Your task to perform on an android device: open app "LiveIn - Share Your Moment" (install if not already installed) and go to login screen Image 0: 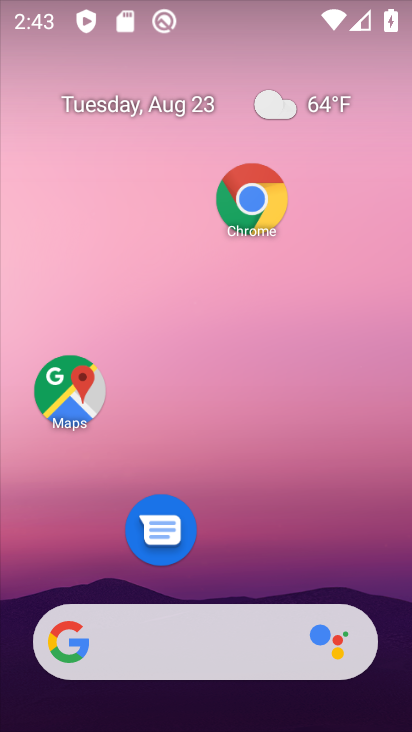
Step 0: click (205, 11)
Your task to perform on an android device: open app "LiveIn - Share Your Moment" (install if not already installed) and go to login screen Image 1: 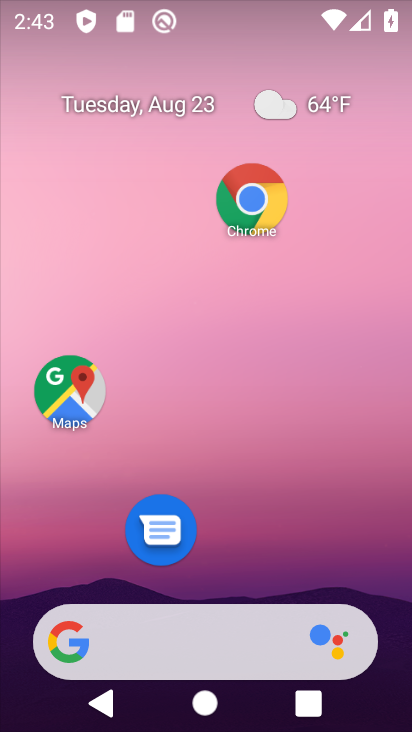
Step 1: drag from (268, 556) to (262, 21)
Your task to perform on an android device: open app "LiveIn - Share Your Moment" (install if not already installed) and go to login screen Image 2: 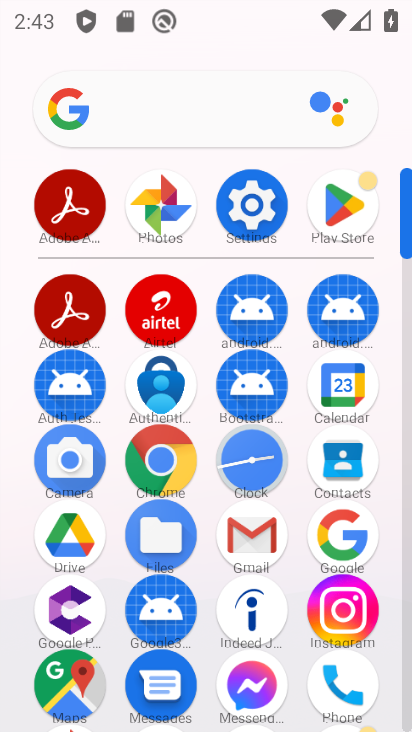
Step 2: click (340, 203)
Your task to perform on an android device: open app "LiveIn - Share Your Moment" (install if not already installed) and go to login screen Image 3: 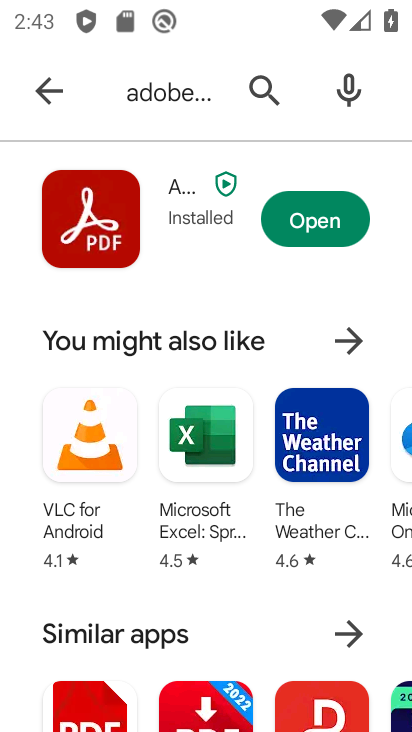
Step 3: click (187, 91)
Your task to perform on an android device: open app "LiveIn - Share Your Moment" (install if not already installed) and go to login screen Image 4: 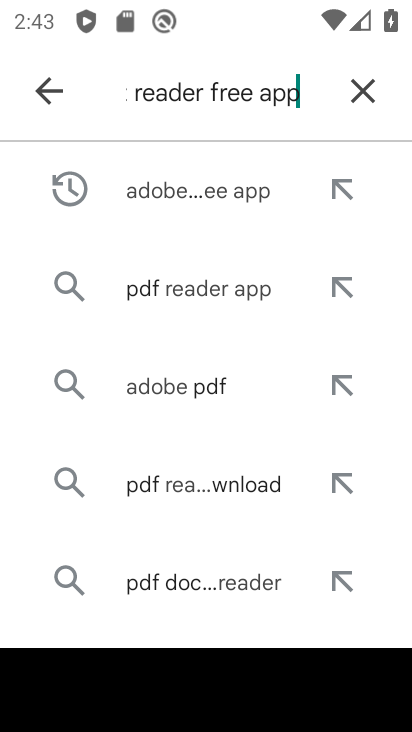
Step 4: click (360, 88)
Your task to perform on an android device: open app "LiveIn - Share Your Moment" (install if not already installed) and go to login screen Image 5: 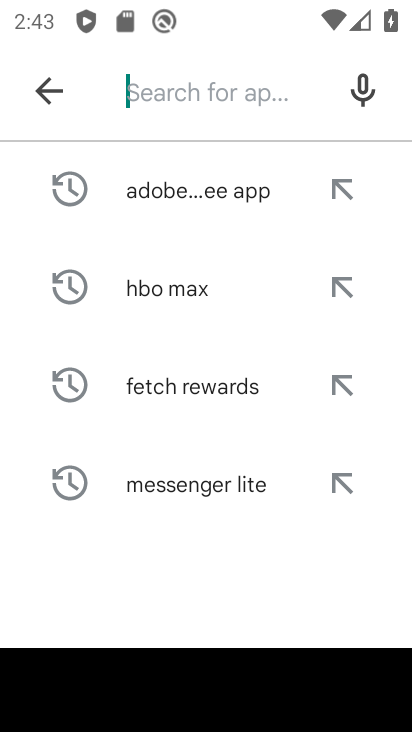
Step 5: type "LieIn"
Your task to perform on an android device: open app "LiveIn - Share Your Moment" (install if not already installed) and go to login screen Image 6: 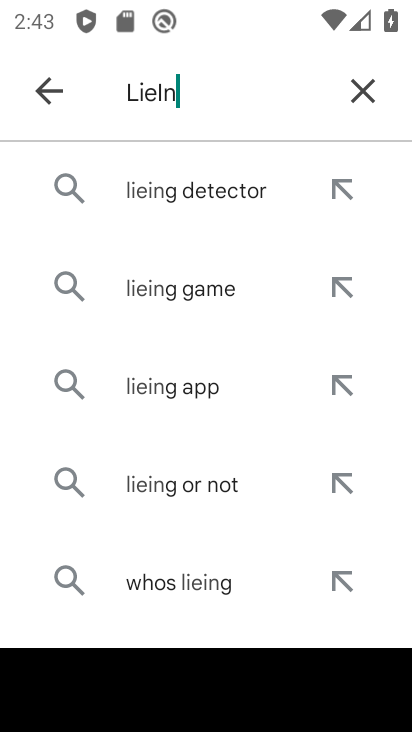
Step 6: click (147, 87)
Your task to perform on an android device: open app "LiveIn - Share Your Moment" (install if not already installed) and go to login screen Image 7: 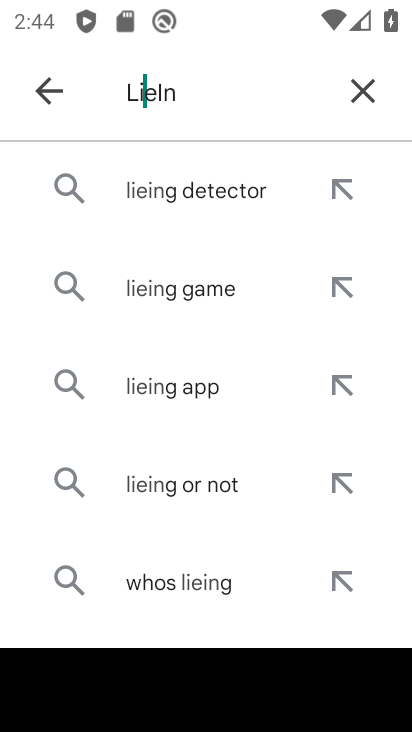
Step 7: type "v"
Your task to perform on an android device: open app "LiveIn - Share Your Moment" (install if not already installed) and go to login screen Image 8: 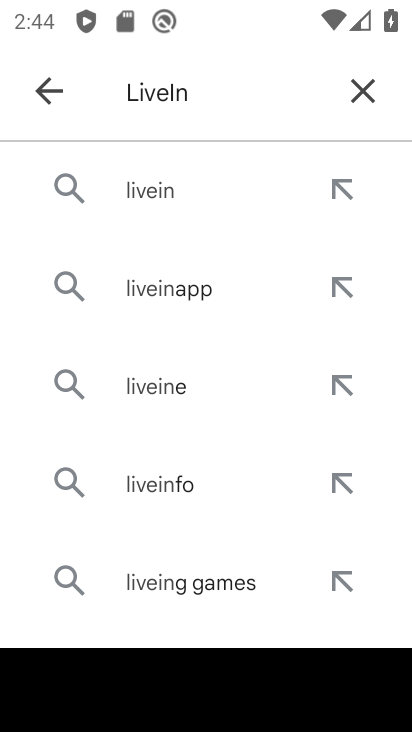
Step 8: click (161, 192)
Your task to perform on an android device: open app "LiveIn - Share Your Moment" (install if not already installed) and go to login screen Image 9: 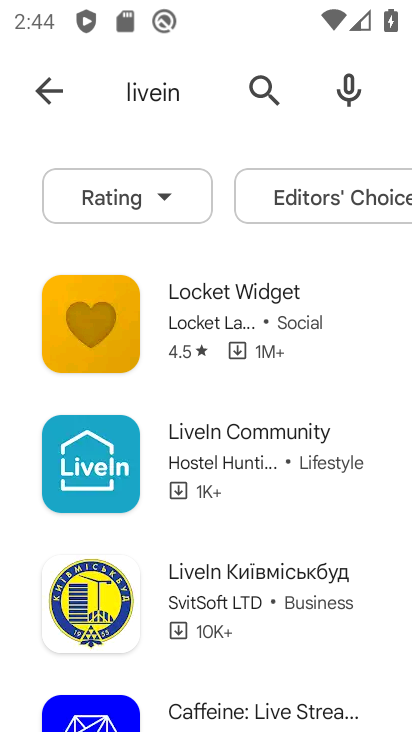
Step 9: task complete